Your task to perform on an android device: check android version Image 0: 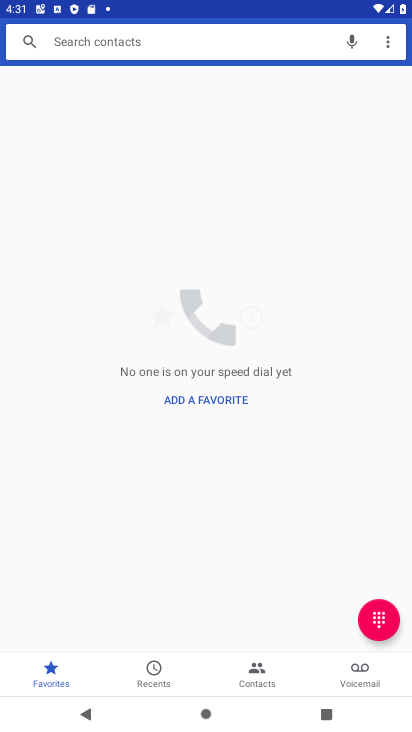
Step 0: press home button
Your task to perform on an android device: check android version Image 1: 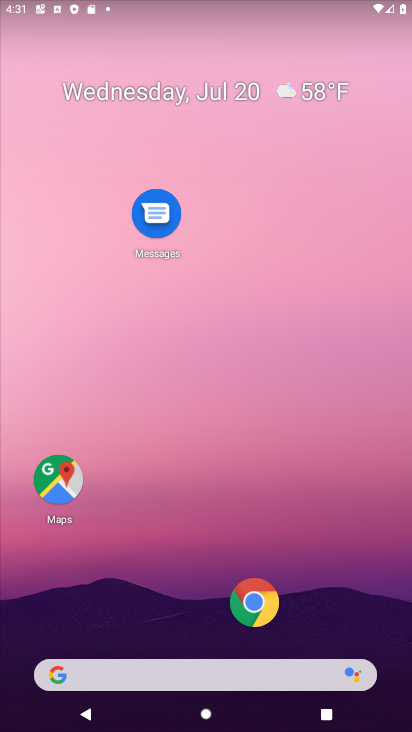
Step 1: drag from (184, 603) to (219, 150)
Your task to perform on an android device: check android version Image 2: 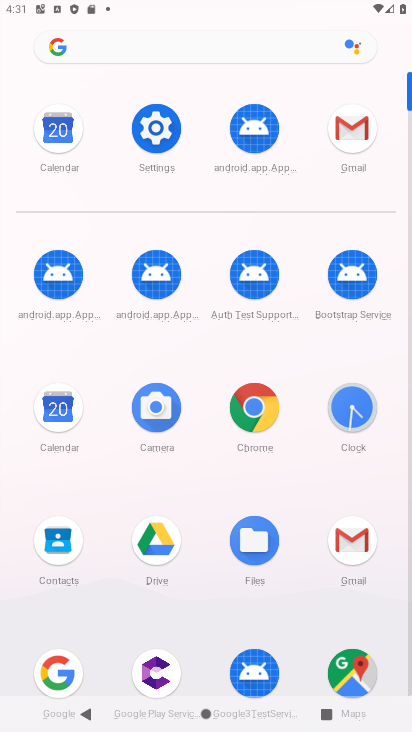
Step 2: click (145, 125)
Your task to perform on an android device: check android version Image 3: 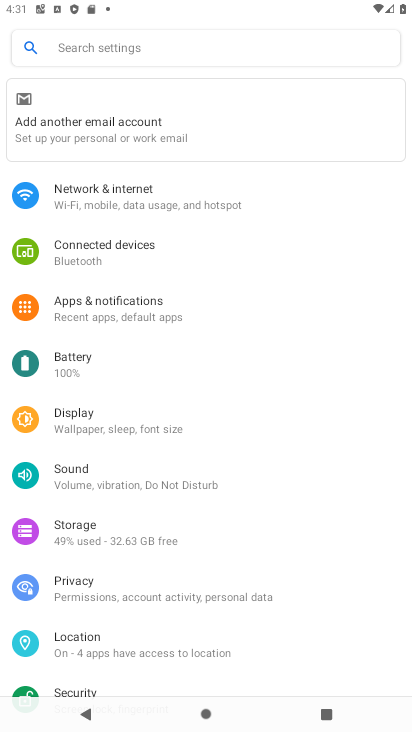
Step 3: drag from (117, 489) to (126, 419)
Your task to perform on an android device: check android version Image 4: 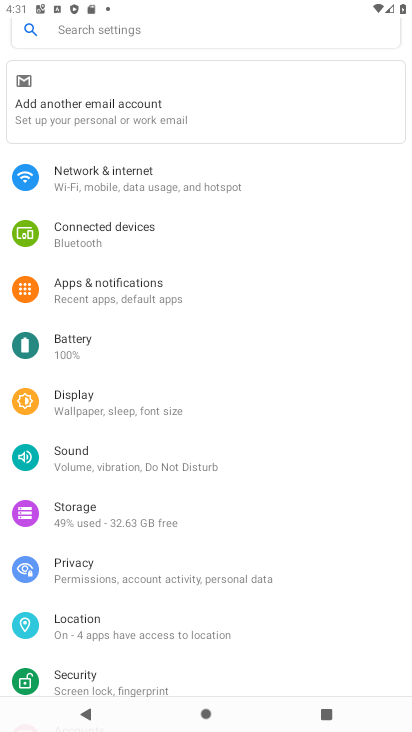
Step 4: drag from (99, 616) to (132, 482)
Your task to perform on an android device: check android version Image 5: 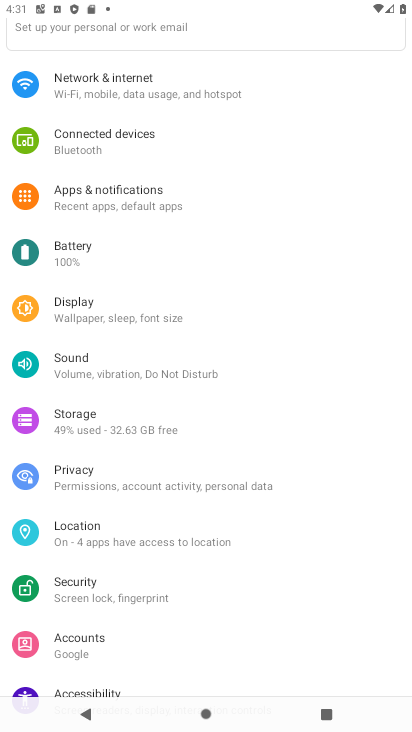
Step 5: drag from (129, 630) to (163, 405)
Your task to perform on an android device: check android version Image 6: 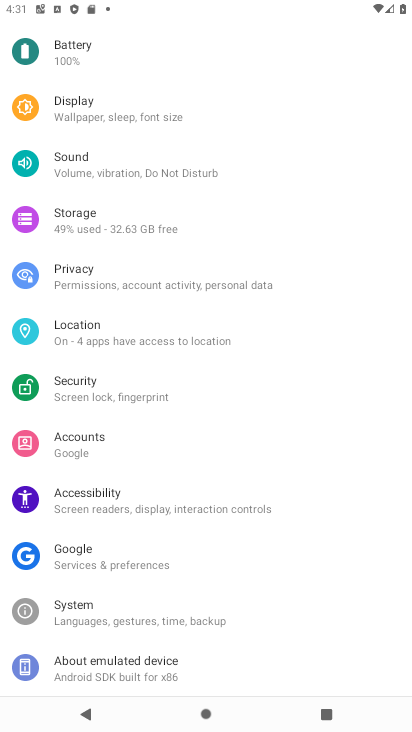
Step 6: click (112, 665)
Your task to perform on an android device: check android version Image 7: 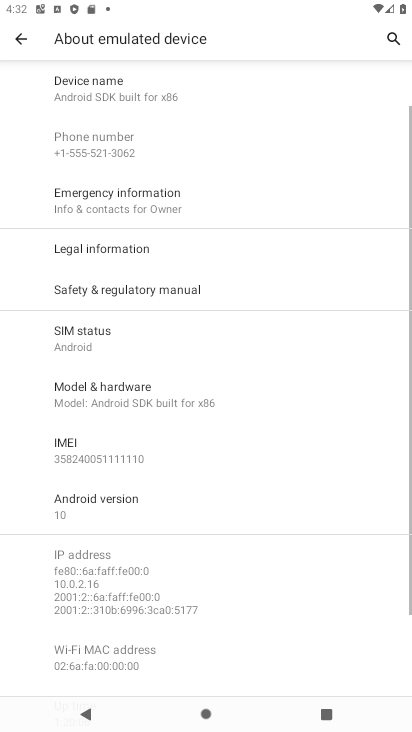
Step 7: task complete